Your task to perform on an android device: Open calendar and show me the fourth week of next month Image 0: 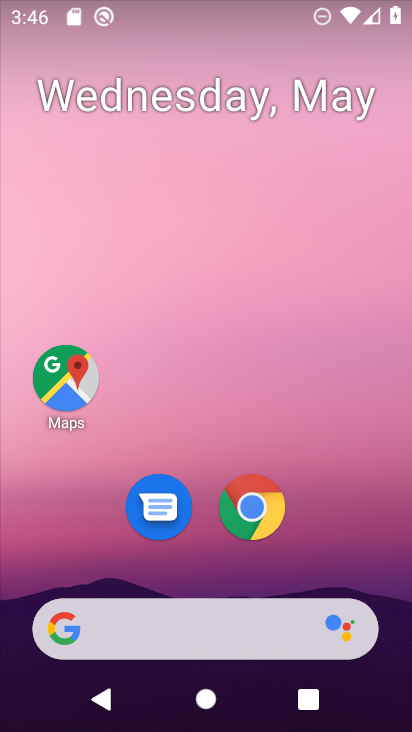
Step 0: drag from (193, 538) to (231, 13)
Your task to perform on an android device: Open calendar and show me the fourth week of next month Image 1: 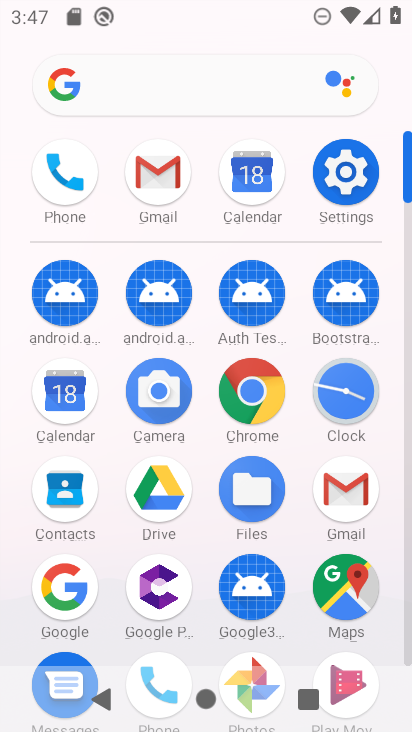
Step 1: click (66, 381)
Your task to perform on an android device: Open calendar and show me the fourth week of next month Image 2: 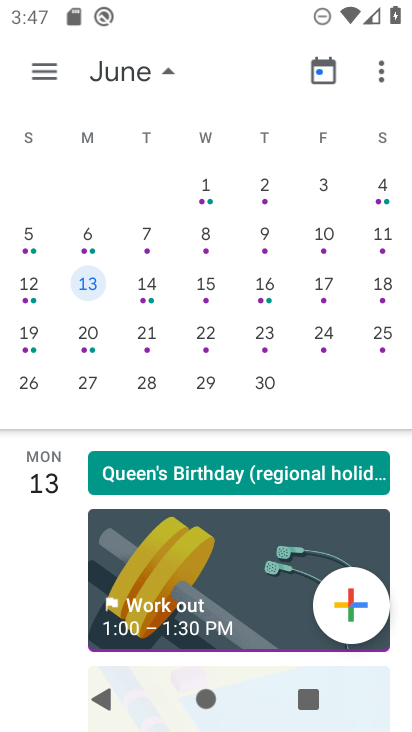
Step 2: click (85, 337)
Your task to perform on an android device: Open calendar and show me the fourth week of next month Image 3: 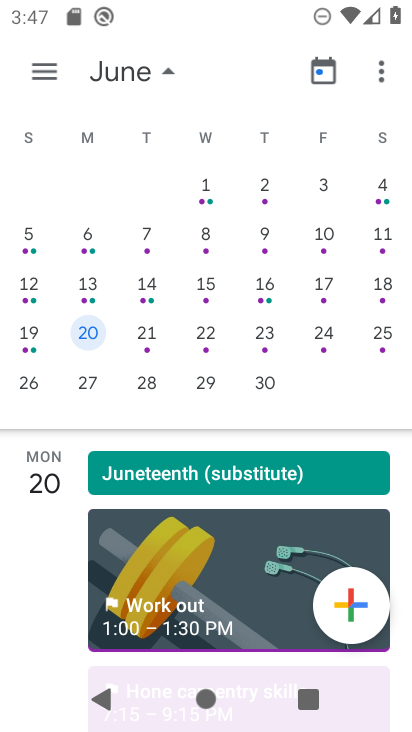
Step 3: task complete